Your task to perform on an android device: change the clock display to show seconds Image 0: 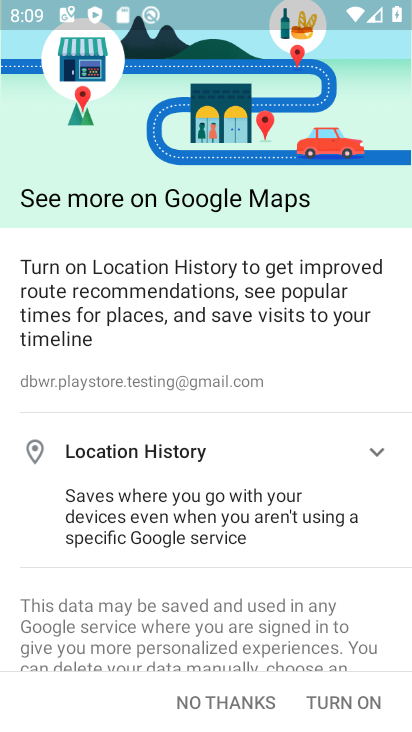
Step 0: press home button
Your task to perform on an android device: change the clock display to show seconds Image 1: 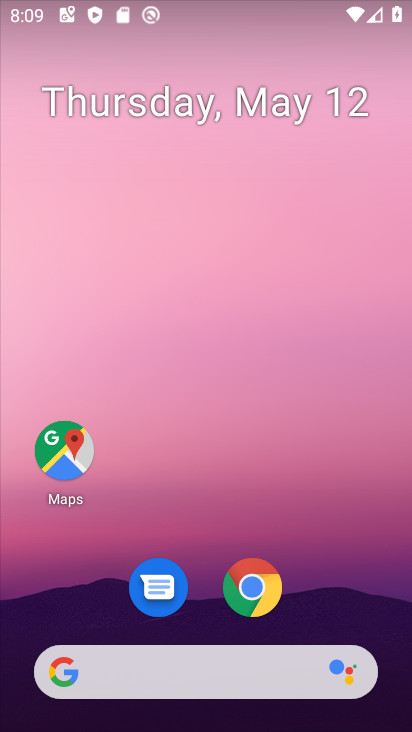
Step 1: drag from (315, 565) to (298, 115)
Your task to perform on an android device: change the clock display to show seconds Image 2: 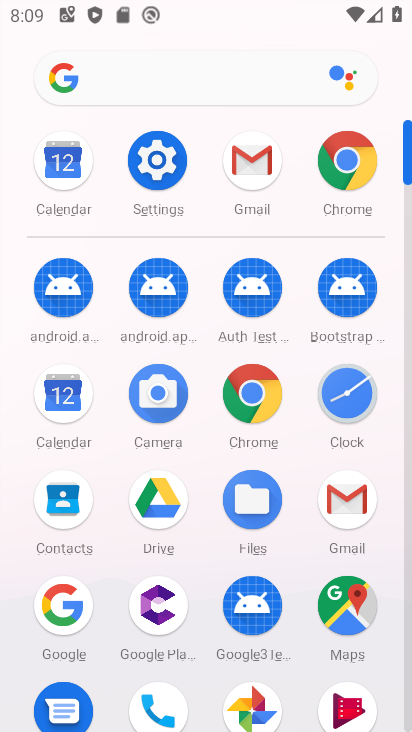
Step 2: click (338, 384)
Your task to perform on an android device: change the clock display to show seconds Image 3: 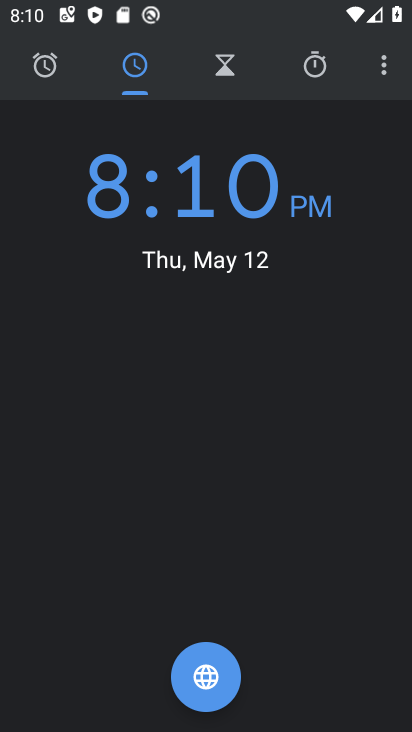
Step 3: click (370, 55)
Your task to perform on an android device: change the clock display to show seconds Image 4: 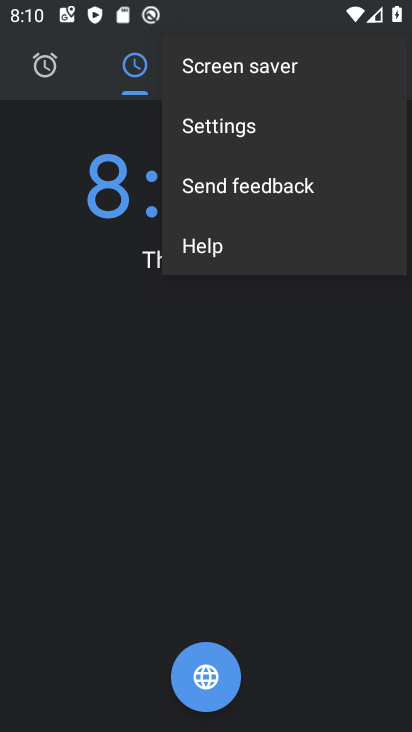
Step 4: click (242, 131)
Your task to perform on an android device: change the clock display to show seconds Image 5: 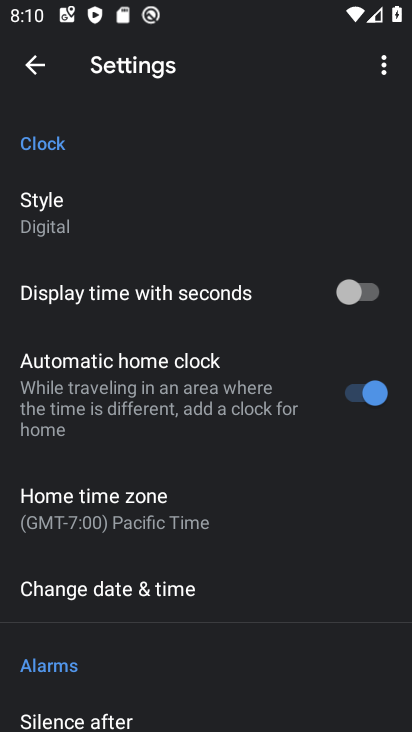
Step 5: click (360, 281)
Your task to perform on an android device: change the clock display to show seconds Image 6: 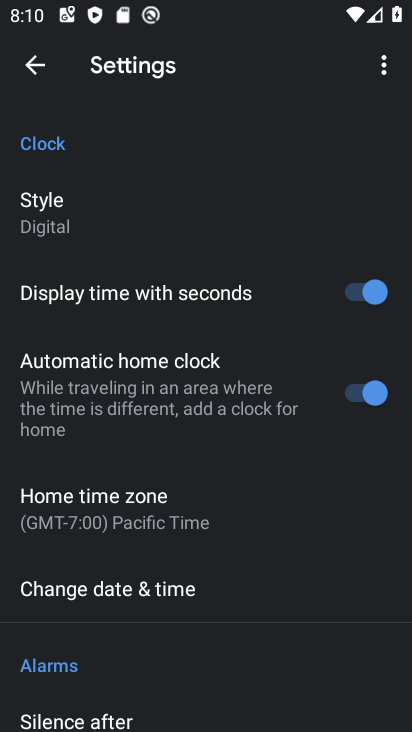
Step 6: task complete